Your task to perform on an android device: remove spam from my inbox in the gmail app Image 0: 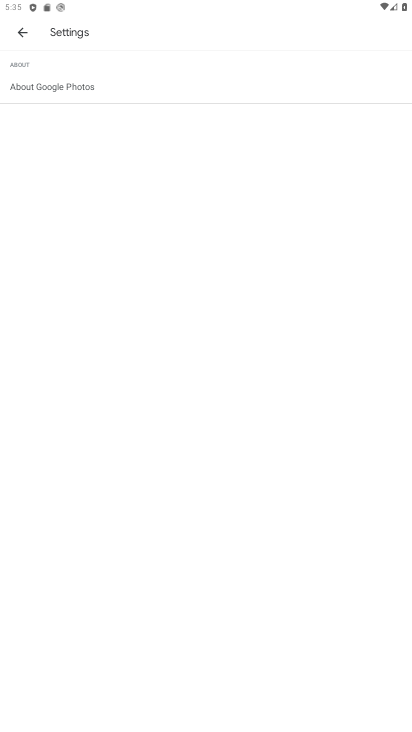
Step 0: press home button
Your task to perform on an android device: remove spam from my inbox in the gmail app Image 1: 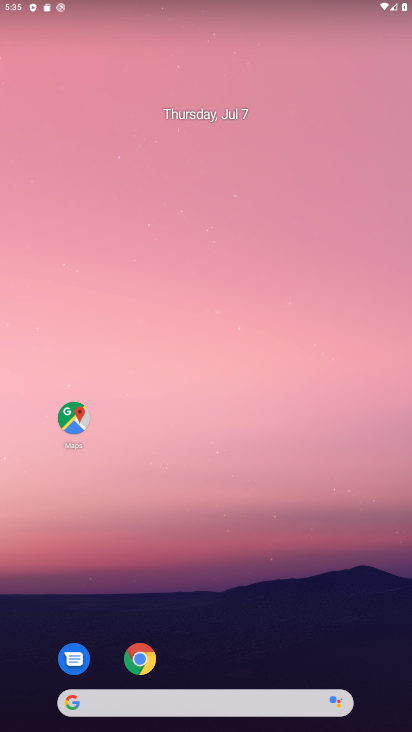
Step 1: drag from (188, 640) to (218, 97)
Your task to perform on an android device: remove spam from my inbox in the gmail app Image 2: 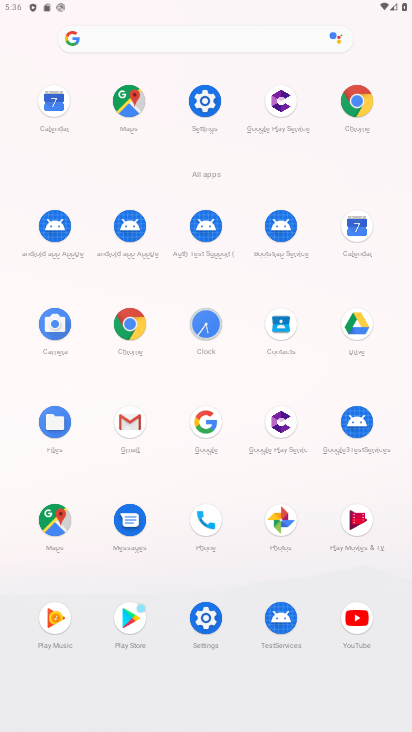
Step 2: click (131, 434)
Your task to perform on an android device: remove spam from my inbox in the gmail app Image 3: 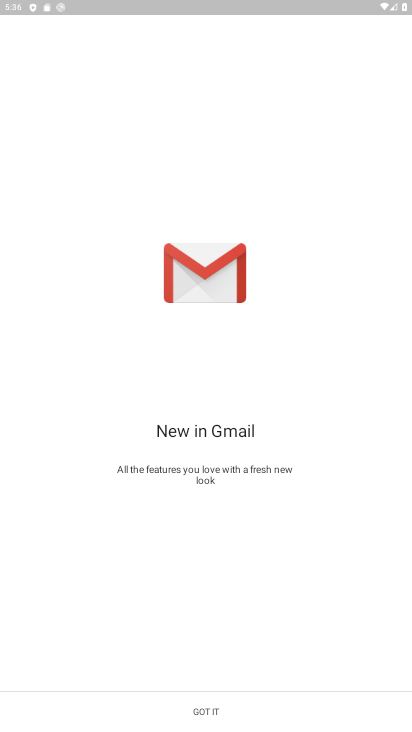
Step 3: click (179, 706)
Your task to perform on an android device: remove spam from my inbox in the gmail app Image 4: 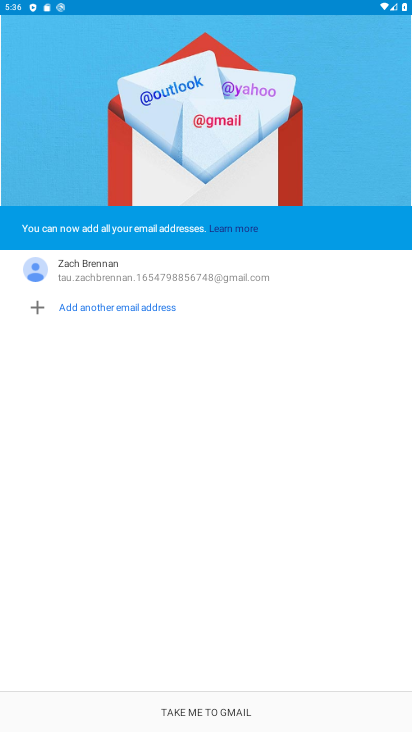
Step 4: click (180, 712)
Your task to perform on an android device: remove spam from my inbox in the gmail app Image 5: 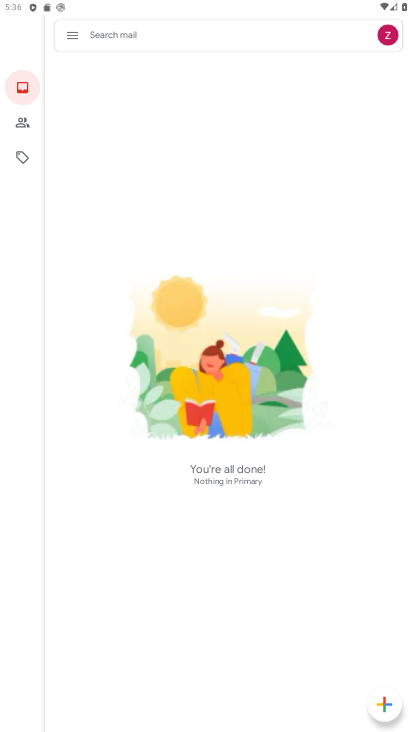
Step 5: click (66, 43)
Your task to perform on an android device: remove spam from my inbox in the gmail app Image 6: 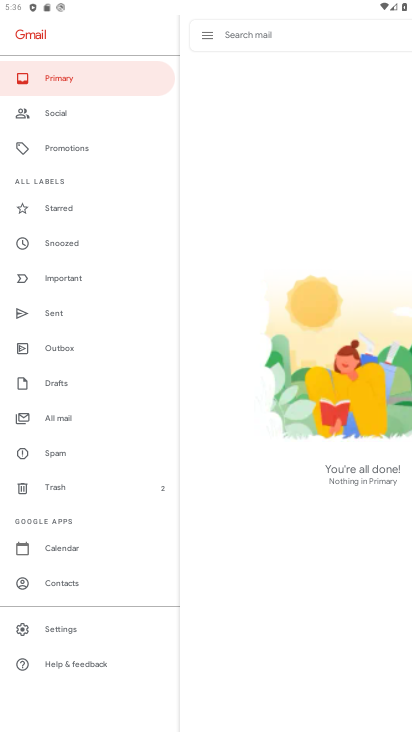
Step 6: click (62, 452)
Your task to perform on an android device: remove spam from my inbox in the gmail app Image 7: 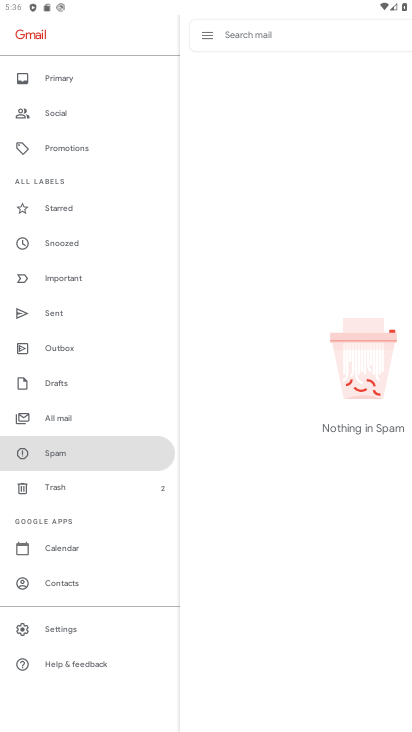
Step 7: task complete